Your task to perform on an android device: Go to Google maps Image 0: 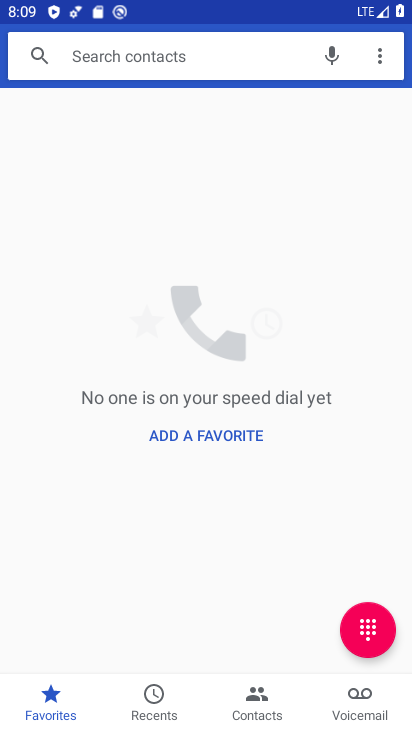
Step 0: press back button
Your task to perform on an android device: Go to Google maps Image 1: 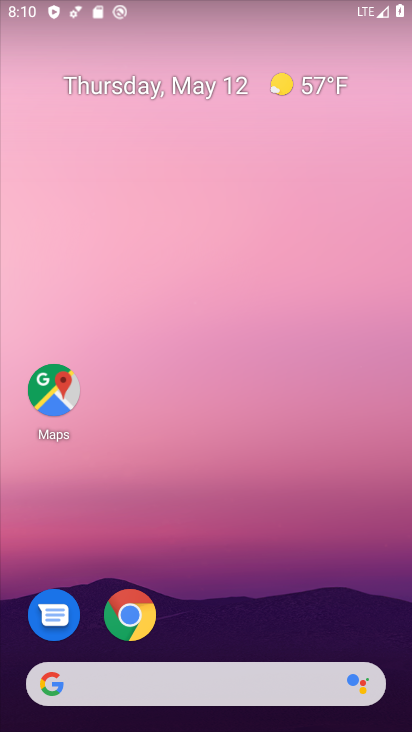
Step 1: drag from (243, 553) to (250, 20)
Your task to perform on an android device: Go to Google maps Image 2: 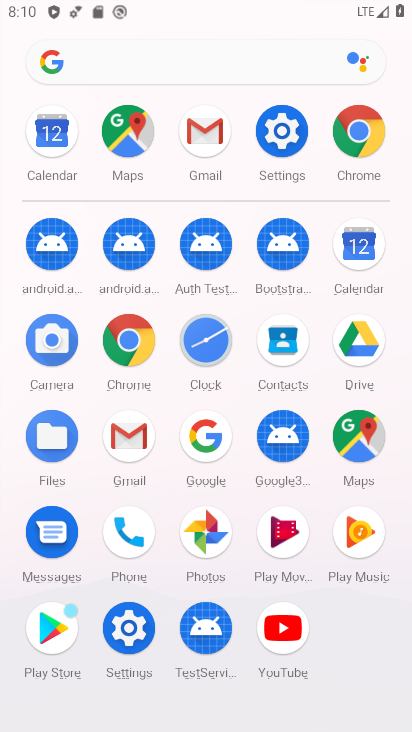
Step 2: drag from (9, 508) to (17, 318)
Your task to perform on an android device: Go to Google maps Image 3: 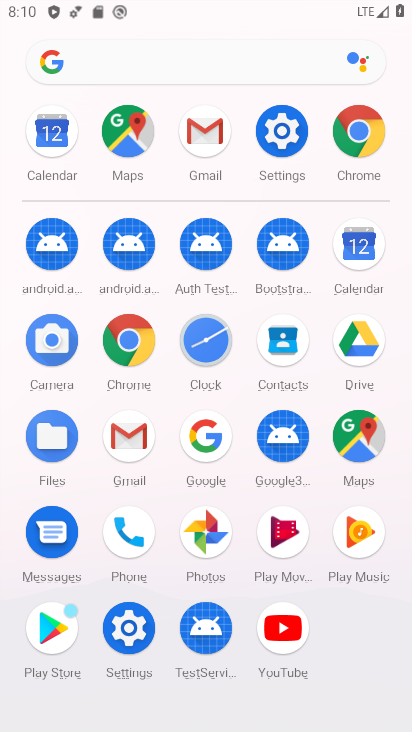
Step 3: click (356, 432)
Your task to perform on an android device: Go to Google maps Image 4: 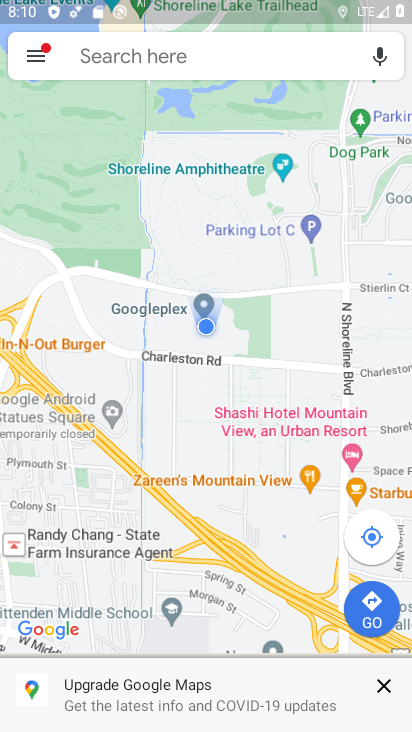
Step 4: task complete